Your task to perform on an android device: What's the weather like in Los Angeles? Image 0: 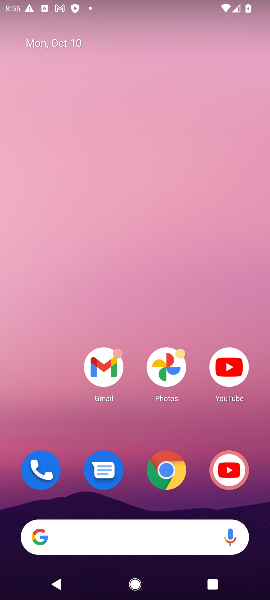
Step 0: click (163, 537)
Your task to perform on an android device: What's the weather like in Los Angeles? Image 1: 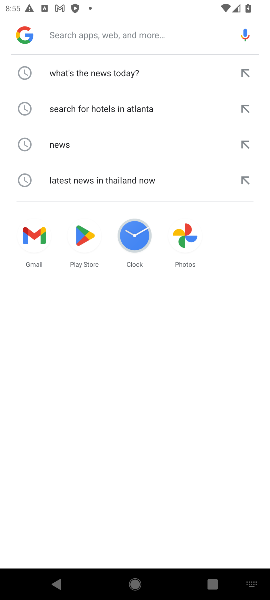
Step 1: type "What's the weather like in Los Angeles?"
Your task to perform on an android device: What's the weather like in Los Angeles? Image 2: 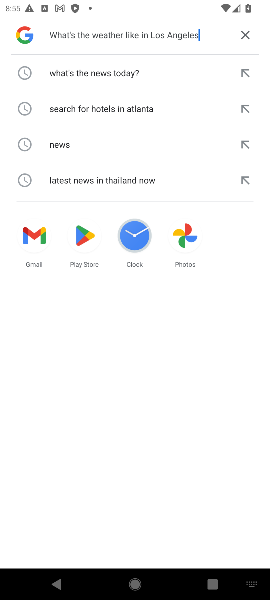
Step 2: type ""
Your task to perform on an android device: What's the weather like in Los Angeles? Image 3: 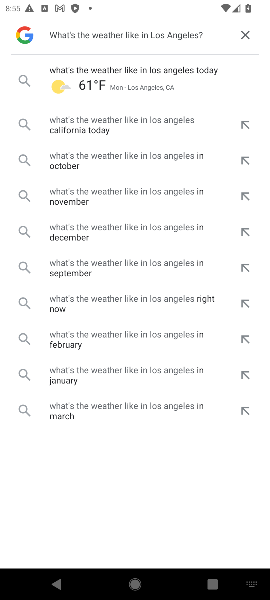
Step 3: click (138, 87)
Your task to perform on an android device: What's the weather like in Los Angeles? Image 4: 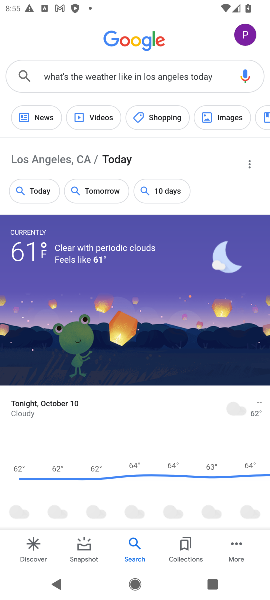
Step 4: drag from (201, 492) to (234, 177)
Your task to perform on an android device: What's the weather like in Los Angeles? Image 5: 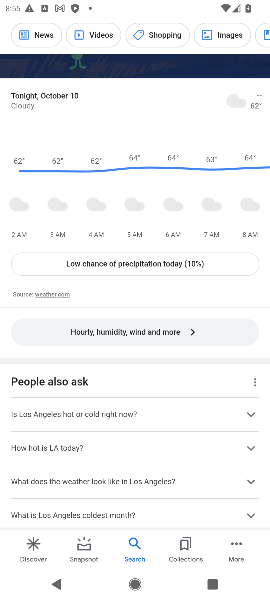
Step 5: drag from (175, 481) to (174, 132)
Your task to perform on an android device: What's the weather like in Los Angeles? Image 6: 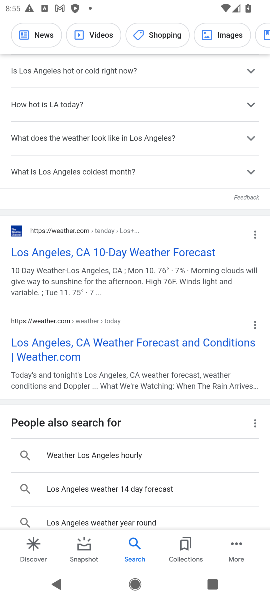
Step 6: drag from (157, 397) to (123, 527)
Your task to perform on an android device: What's the weather like in Los Angeles? Image 7: 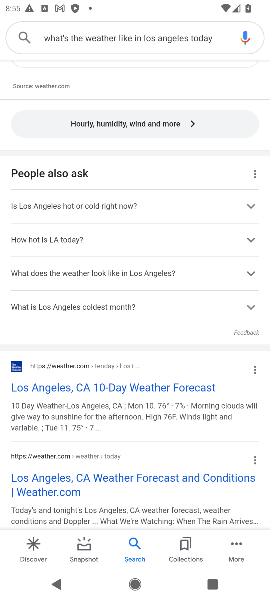
Step 7: drag from (143, 138) to (124, 499)
Your task to perform on an android device: What's the weather like in Los Angeles? Image 8: 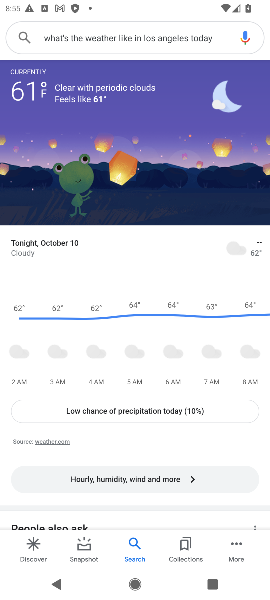
Step 8: drag from (182, 160) to (212, 234)
Your task to perform on an android device: What's the weather like in Los Angeles? Image 9: 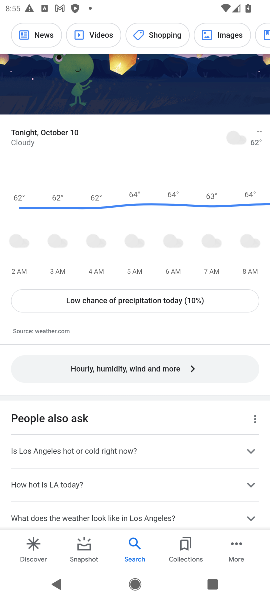
Step 9: drag from (199, 350) to (194, 171)
Your task to perform on an android device: What's the weather like in Los Angeles? Image 10: 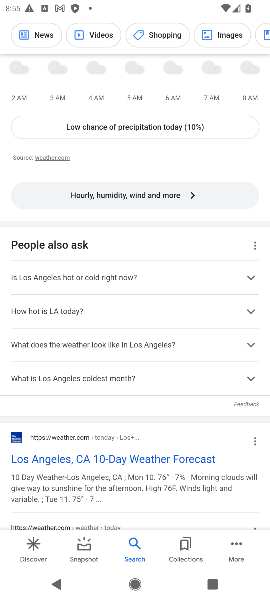
Step 10: drag from (170, 348) to (146, 220)
Your task to perform on an android device: What's the weather like in Los Angeles? Image 11: 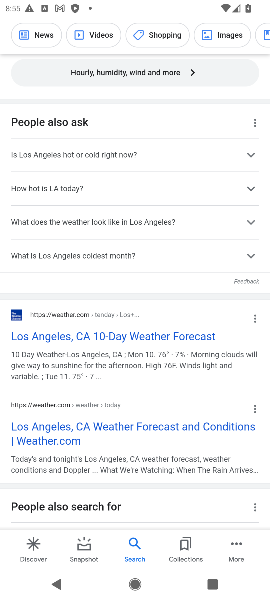
Step 11: click (123, 324)
Your task to perform on an android device: What's the weather like in Los Angeles? Image 12: 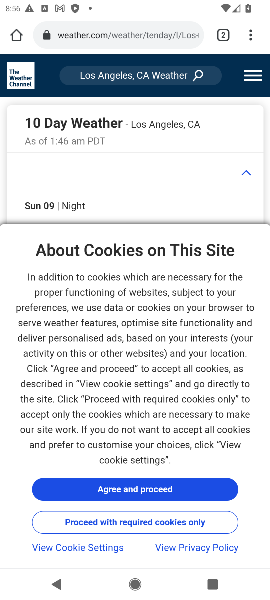
Step 12: drag from (109, 466) to (152, 276)
Your task to perform on an android device: What's the weather like in Los Angeles? Image 13: 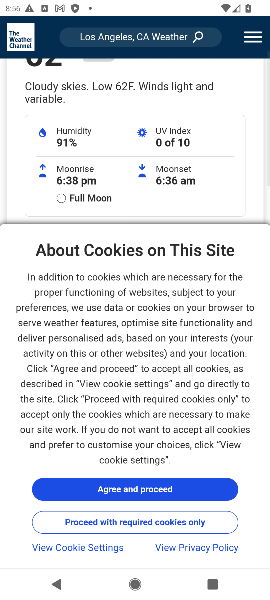
Step 13: drag from (196, 403) to (229, 168)
Your task to perform on an android device: What's the weather like in Los Angeles? Image 14: 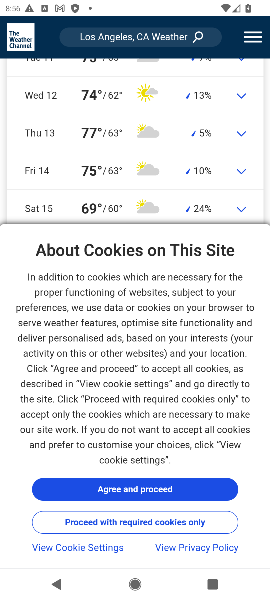
Step 14: drag from (211, 347) to (218, 114)
Your task to perform on an android device: What's the weather like in Los Angeles? Image 15: 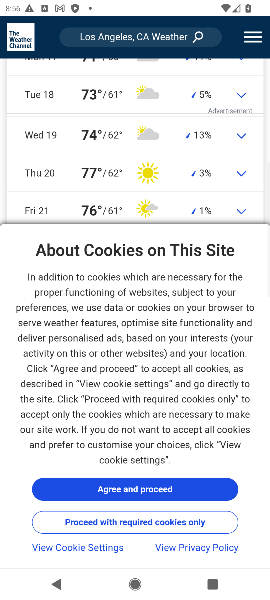
Step 15: drag from (138, 463) to (169, 153)
Your task to perform on an android device: What's the weather like in Los Angeles? Image 16: 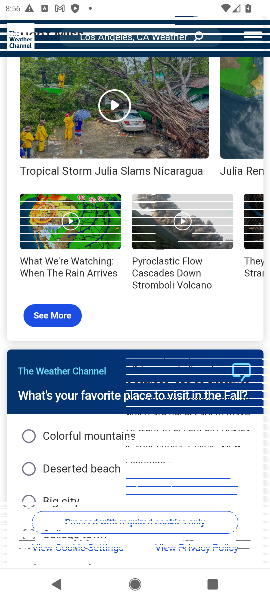
Step 16: drag from (167, 417) to (183, 113)
Your task to perform on an android device: What's the weather like in Los Angeles? Image 17: 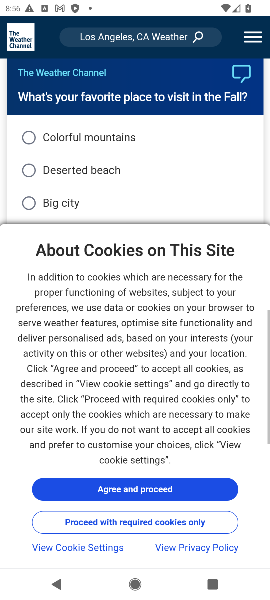
Step 17: drag from (193, 391) to (180, 150)
Your task to perform on an android device: What's the weather like in Los Angeles? Image 18: 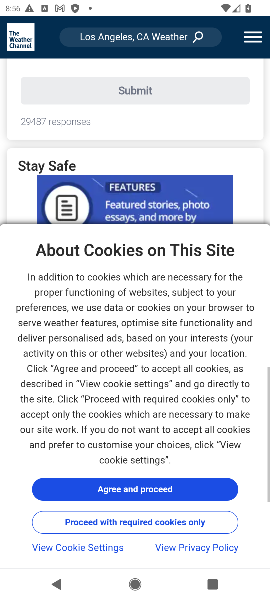
Step 18: drag from (195, 365) to (198, 126)
Your task to perform on an android device: What's the weather like in Los Angeles? Image 19: 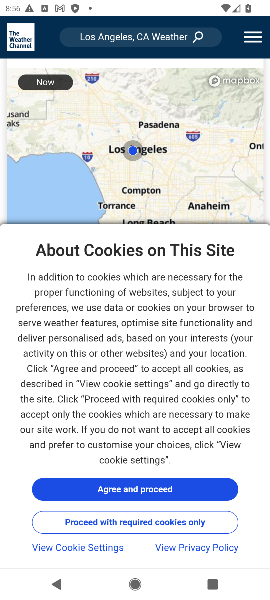
Step 19: click (173, 486)
Your task to perform on an android device: What's the weather like in Los Angeles? Image 20: 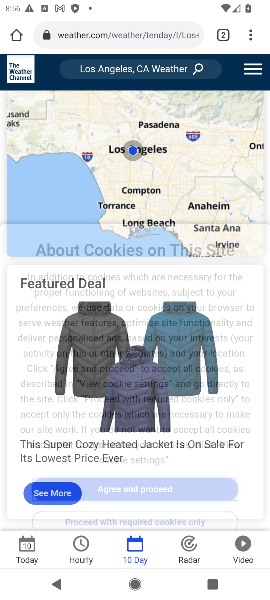
Step 20: drag from (178, 420) to (186, 212)
Your task to perform on an android device: What's the weather like in Los Angeles? Image 21: 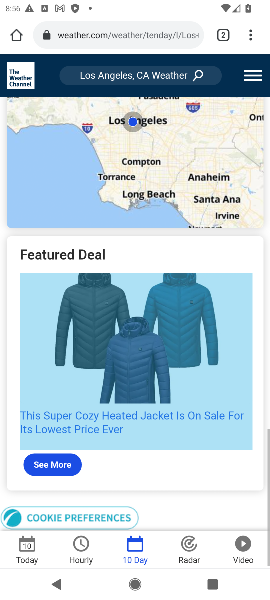
Step 21: drag from (211, 435) to (219, 189)
Your task to perform on an android device: What's the weather like in Los Angeles? Image 22: 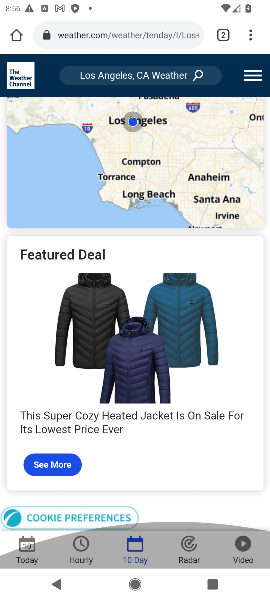
Step 22: drag from (242, 376) to (226, 186)
Your task to perform on an android device: What's the weather like in Los Angeles? Image 23: 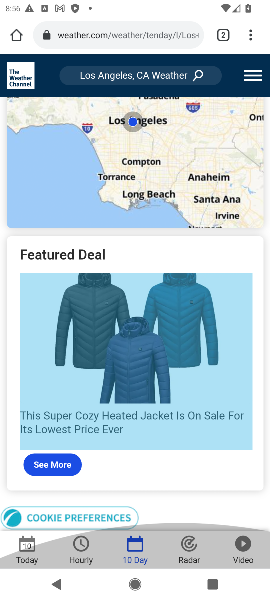
Step 23: drag from (228, 306) to (228, 141)
Your task to perform on an android device: What's the weather like in Los Angeles? Image 24: 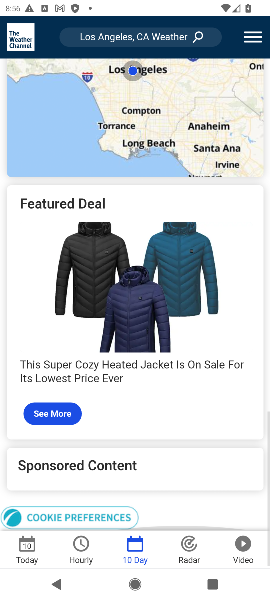
Step 24: drag from (176, 401) to (123, 505)
Your task to perform on an android device: What's the weather like in Los Angeles? Image 25: 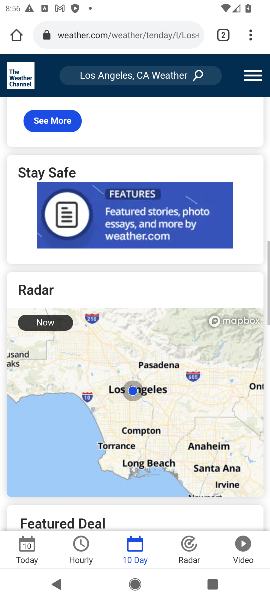
Step 25: drag from (166, 155) to (125, 436)
Your task to perform on an android device: What's the weather like in Los Angeles? Image 26: 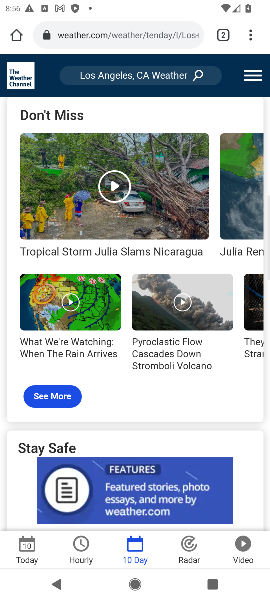
Step 26: drag from (145, 168) to (134, 448)
Your task to perform on an android device: What's the weather like in Los Angeles? Image 27: 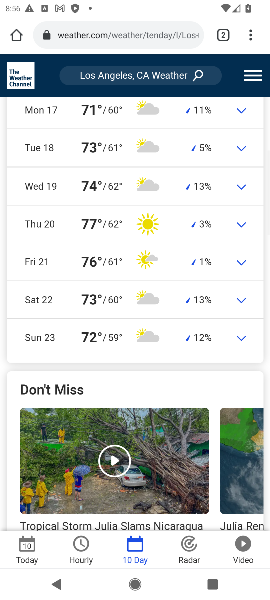
Step 27: drag from (158, 142) to (172, 389)
Your task to perform on an android device: What's the weather like in Los Angeles? Image 28: 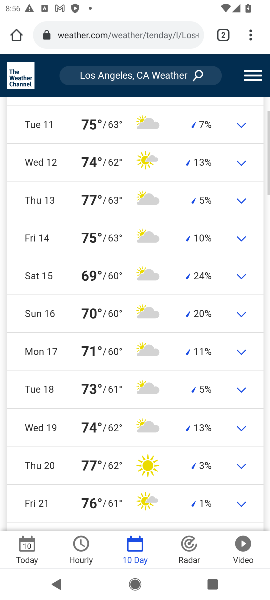
Step 28: drag from (152, 215) to (142, 429)
Your task to perform on an android device: What's the weather like in Los Angeles? Image 29: 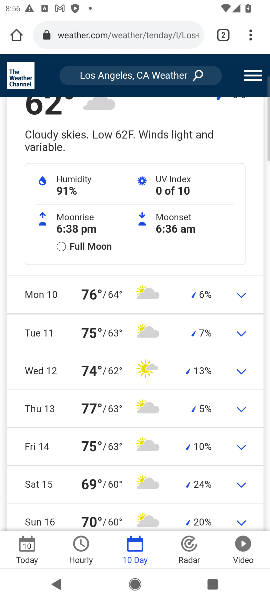
Step 29: drag from (153, 191) to (154, 413)
Your task to perform on an android device: What's the weather like in Los Angeles? Image 30: 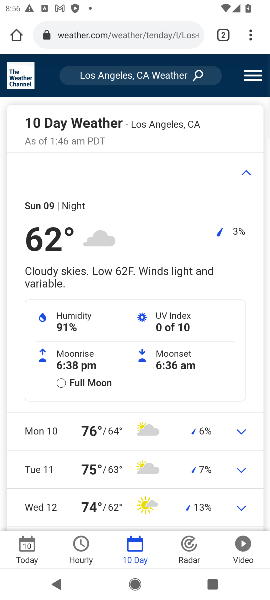
Step 30: drag from (176, 191) to (194, 409)
Your task to perform on an android device: What's the weather like in Los Angeles? Image 31: 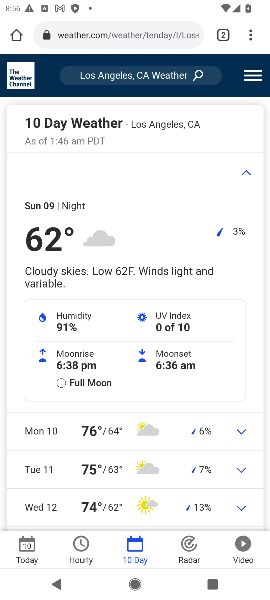
Step 31: drag from (158, 142) to (139, 361)
Your task to perform on an android device: What's the weather like in Los Angeles? Image 32: 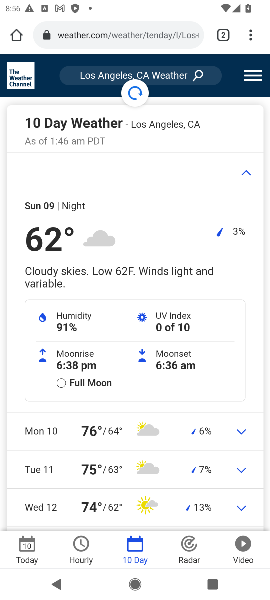
Step 32: drag from (155, 455) to (188, 168)
Your task to perform on an android device: What's the weather like in Los Angeles? Image 33: 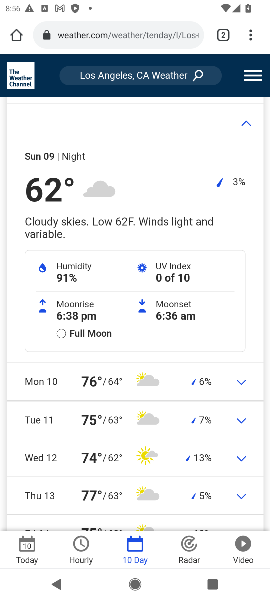
Step 33: press back button
Your task to perform on an android device: What's the weather like in Los Angeles? Image 34: 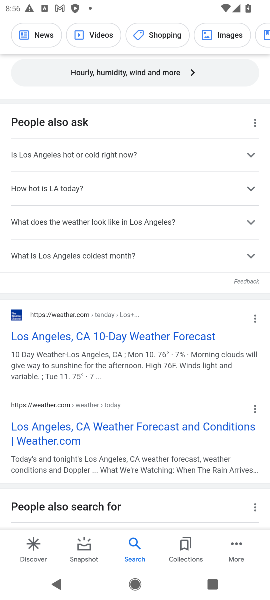
Step 34: click (97, 342)
Your task to perform on an android device: What's the weather like in Los Angeles? Image 35: 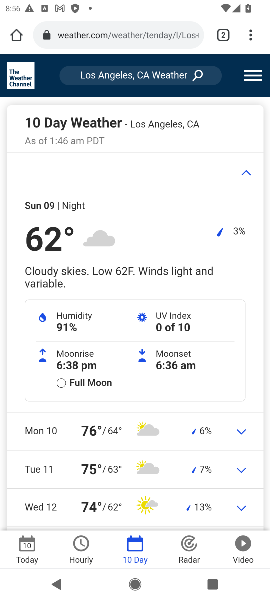
Step 35: drag from (124, 414) to (169, 190)
Your task to perform on an android device: What's the weather like in Los Angeles? Image 36: 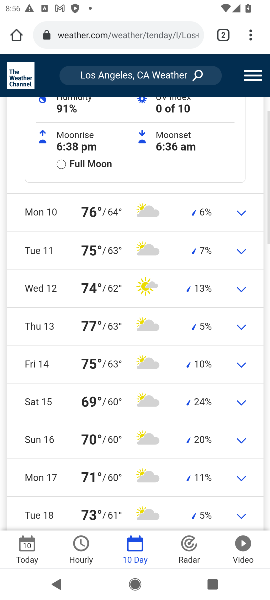
Step 36: drag from (162, 491) to (192, 185)
Your task to perform on an android device: What's the weather like in Los Angeles? Image 37: 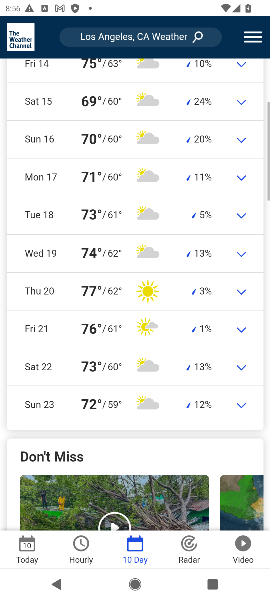
Step 37: drag from (183, 486) to (197, 159)
Your task to perform on an android device: What's the weather like in Los Angeles? Image 38: 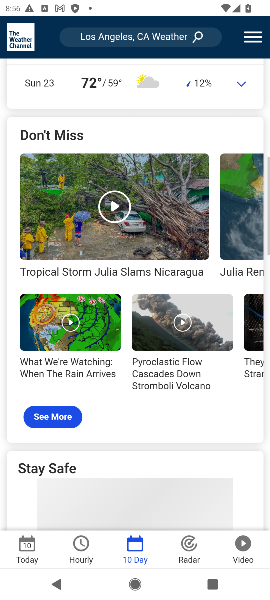
Step 38: drag from (146, 370) to (166, 105)
Your task to perform on an android device: What's the weather like in Los Angeles? Image 39: 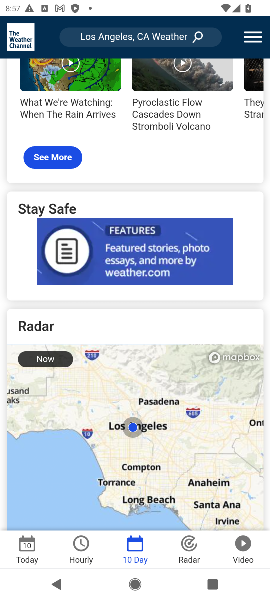
Step 39: drag from (135, 282) to (141, 37)
Your task to perform on an android device: What's the weather like in Los Angeles? Image 40: 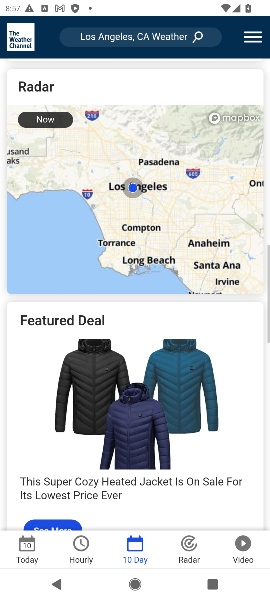
Step 40: drag from (142, 359) to (171, 123)
Your task to perform on an android device: What's the weather like in Los Angeles? Image 41: 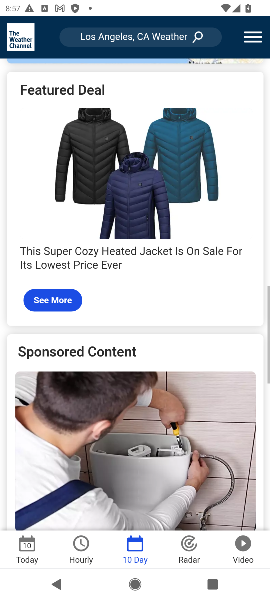
Step 41: drag from (142, 402) to (197, 112)
Your task to perform on an android device: What's the weather like in Los Angeles? Image 42: 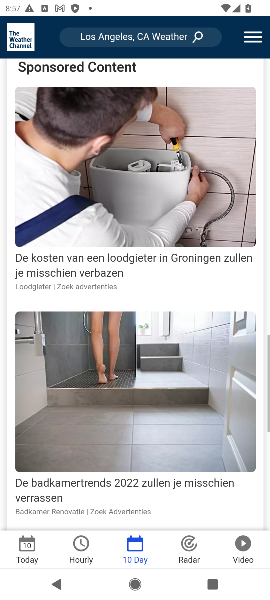
Step 42: drag from (176, 281) to (203, 130)
Your task to perform on an android device: What's the weather like in Los Angeles? Image 43: 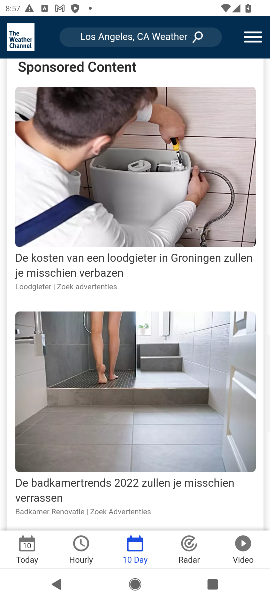
Step 43: drag from (182, 279) to (192, 133)
Your task to perform on an android device: What's the weather like in Los Angeles? Image 44: 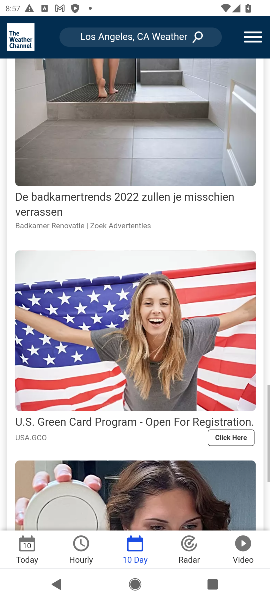
Step 44: drag from (162, 339) to (180, 129)
Your task to perform on an android device: What's the weather like in Los Angeles? Image 45: 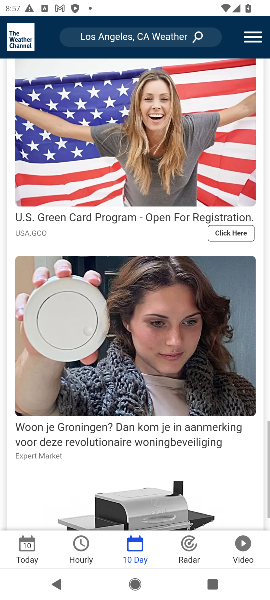
Step 45: drag from (160, 433) to (201, 157)
Your task to perform on an android device: What's the weather like in Los Angeles? Image 46: 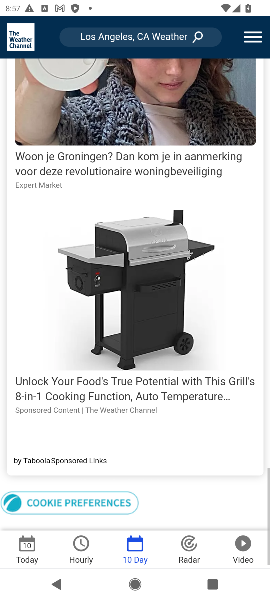
Step 46: drag from (182, 390) to (195, 146)
Your task to perform on an android device: What's the weather like in Los Angeles? Image 47: 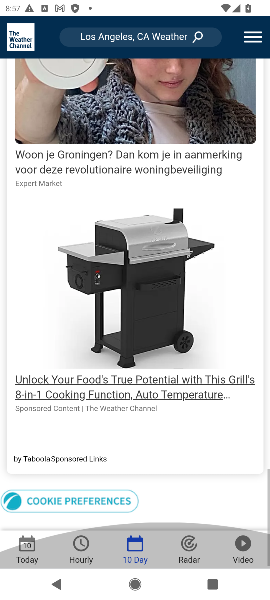
Step 47: drag from (154, 426) to (194, 109)
Your task to perform on an android device: What's the weather like in Los Angeles? Image 48: 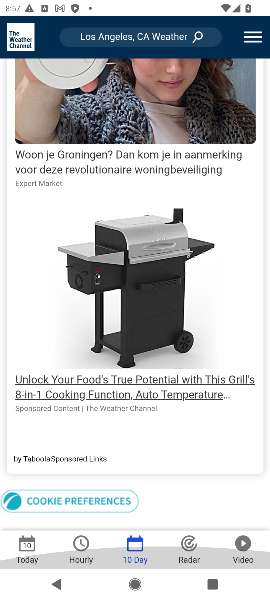
Step 48: drag from (187, 359) to (193, 166)
Your task to perform on an android device: What's the weather like in Los Angeles? Image 49: 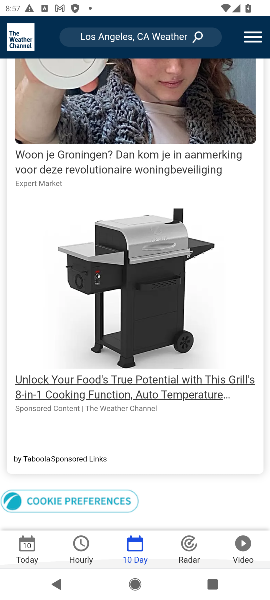
Step 49: press back button
Your task to perform on an android device: What's the weather like in Los Angeles? Image 50: 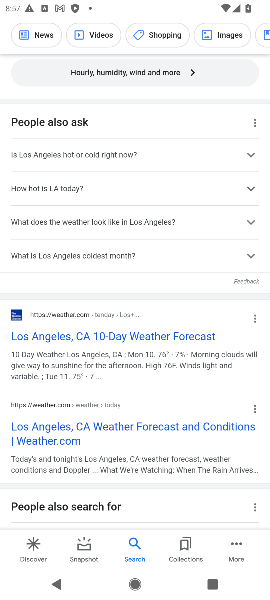
Step 50: click (122, 432)
Your task to perform on an android device: What's the weather like in Los Angeles? Image 51: 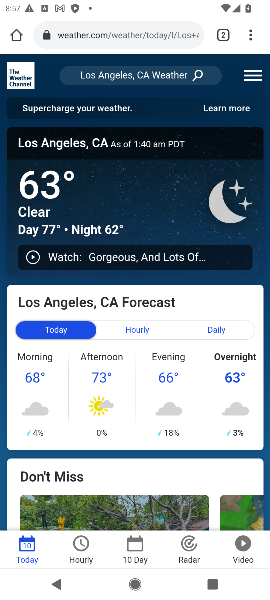
Step 51: drag from (125, 431) to (163, 209)
Your task to perform on an android device: What's the weather like in Los Angeles? Image 52: 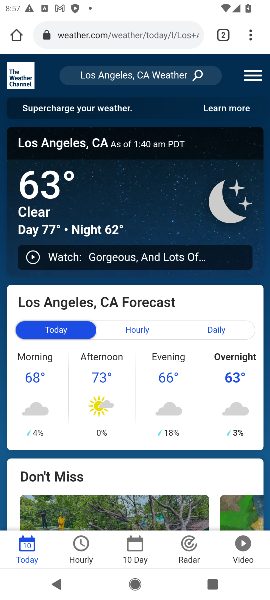
Step 52: drag from (157, 399) to (183, 176)
Your task to perform on an android device: What's the weather like in Los Angeles? Image 53: 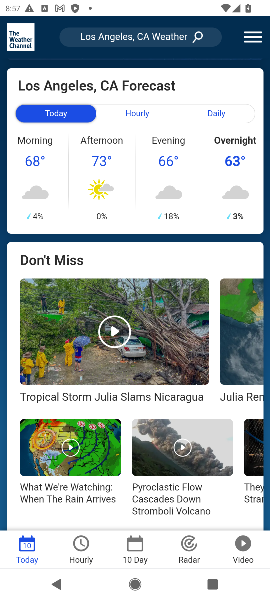
Step 53: drag from (147, 384) to (172, 121)
Your task to perform on an android device: What's the weather like in Los Angeles? Image 54: 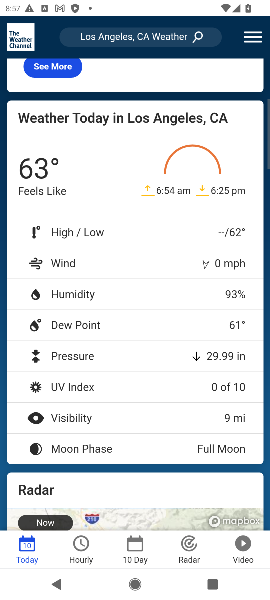
Step 54: drag from (114, 399) to (157, 138)
Your task to perform on an android device: What's the weather like in Los Angeles? Image 55: 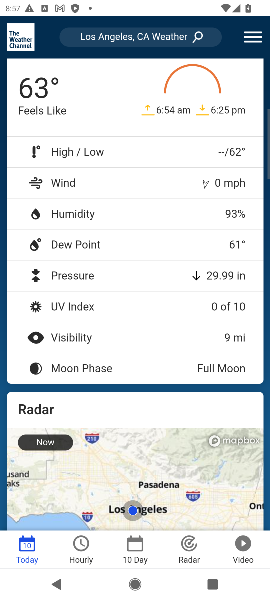
Step 55: drag from (139, 402) to (146, 109)
Your task to perform on an android device: What's the weather like in Los Angeles? Image 56: 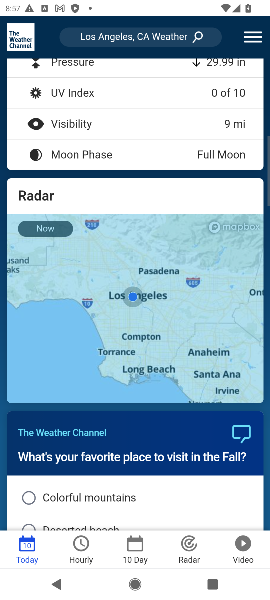
Step 56: drag from (177, 375) to (185, 118)
Your task to perform on an android device: What's the weather like in Los Angeles? Image 57: 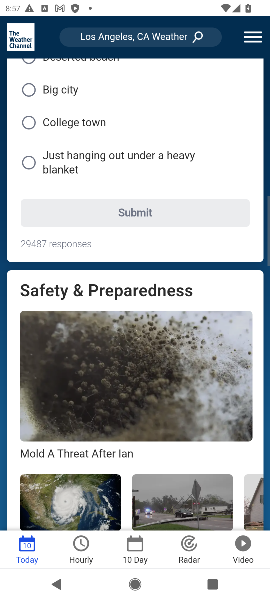
Step 57: drag from (201, 248) to (194, 97)
Your task to perform on an android device: What's the weather like in Los Angeles? Image 58: 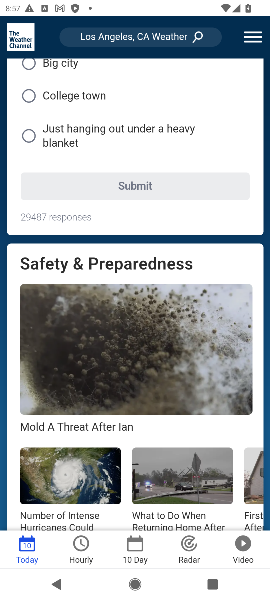
Step 58: drag from (188, 335) to (197, 39)
Your task to perform on an android device: What's the weather like in Los Angeles? Image 59: 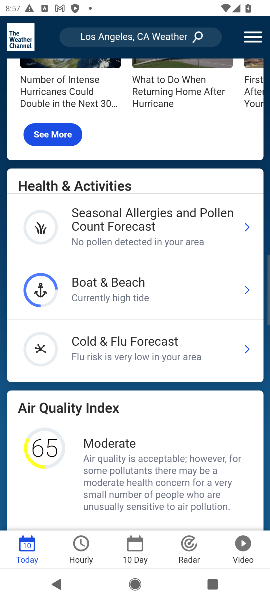
Step 59: drag from (155, 401) to (161, 60)
Your task to perform on an android device: What's the weather like in Los Angeles? Image 60: 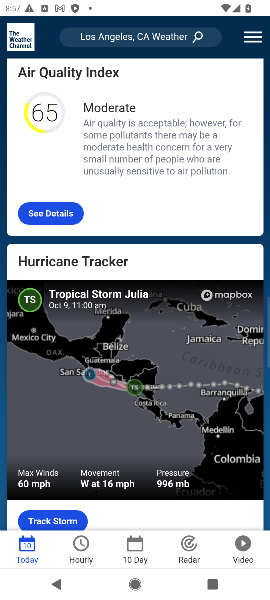
Step 60: drag from (195, 406) to (174, 83)
Your task to perform on an android device: What's the weather like in Los Angeles? Image 61: 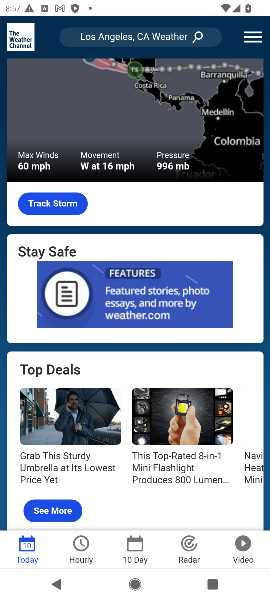
Step 61: press back button
Your task to perform on an android device: What's the weather like in Los Angeles? Image 62: 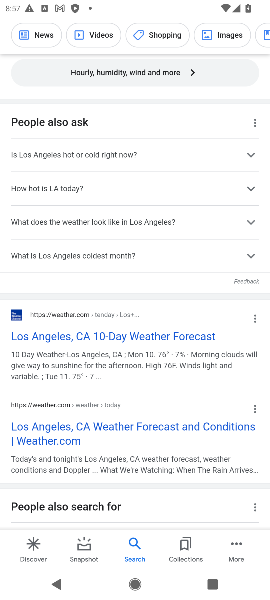
Step 62: drag from (221, 472) to (200, 97)
Your task to perform on an android device: What's the weather like in Los Angeles? Image 63: 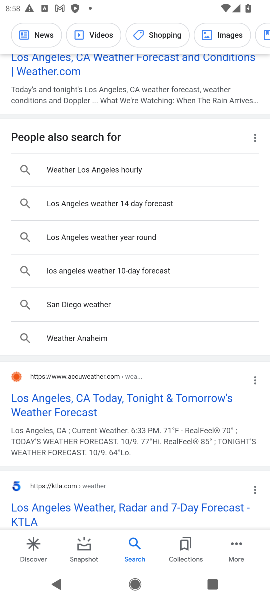
Step 63: click (151, 390)
Your task to perform on an android device: What's the weather like in Los Angeles? Image 64: 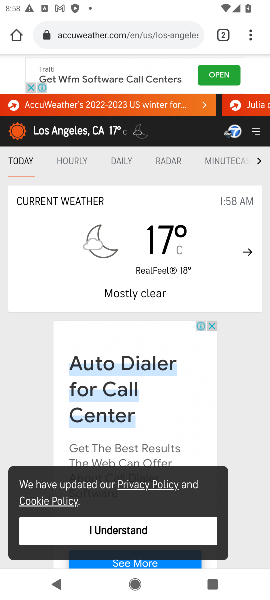
Step 64: task complete